Your task to perform on an android device: clear history in the chrome app Image 0: 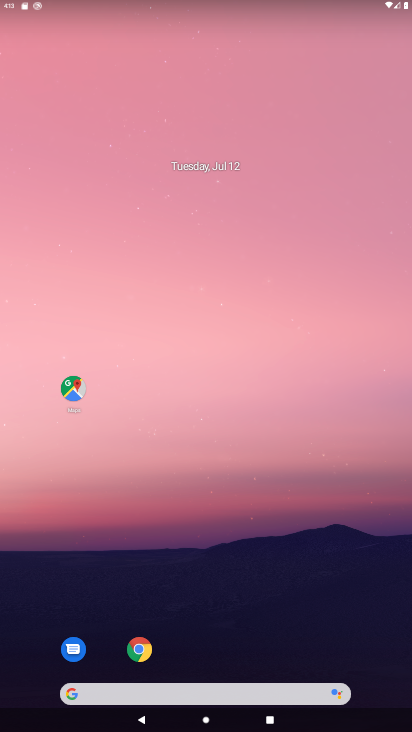
Step 0: click (146, 646)
Your task to perform on an android device: clear history in the chrome app Image 1: 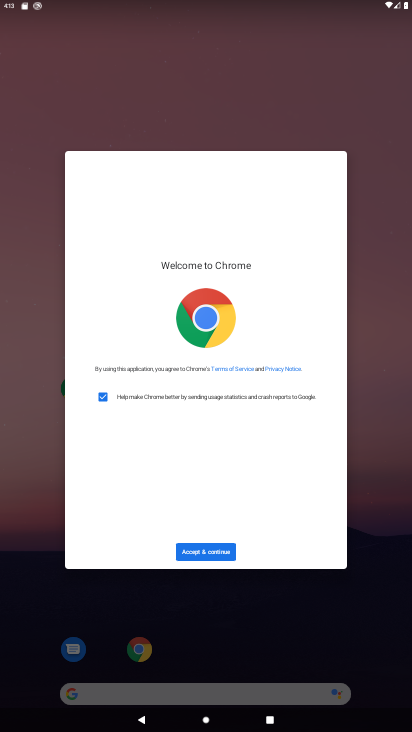
Step 1: click (199, 555)
Your task to perform on an android device: clear history in the chrome app Image 2: 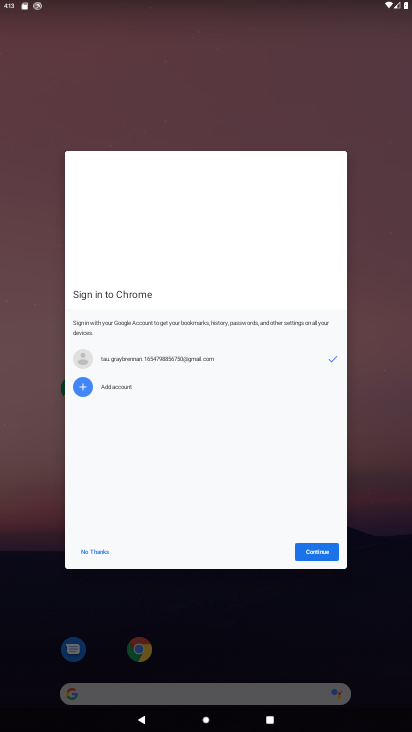
Step 2: click (316, 556)
Your task to perform on an android device: clear history in the chrome app Image 3: 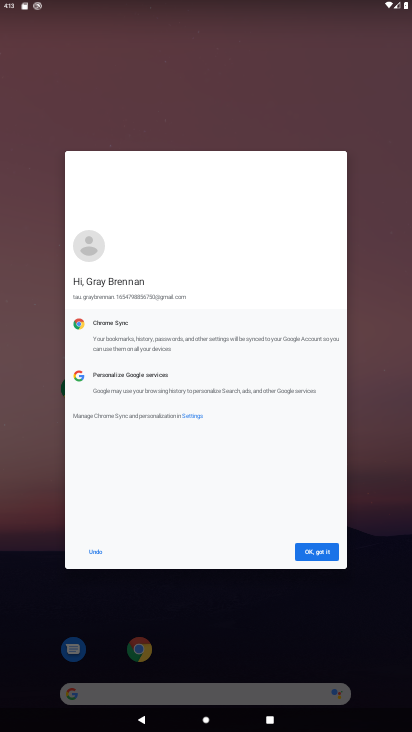
Step 3: click (316, 556)
Your task to perform on an android device: clear history in the chrome app Image 4: 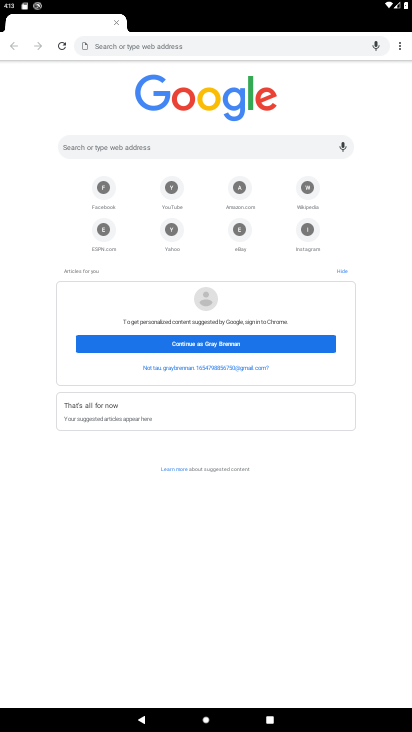
Step 4: click (400, 42)
Your task to perform on an android device: clear history in the chrome app Image 5: 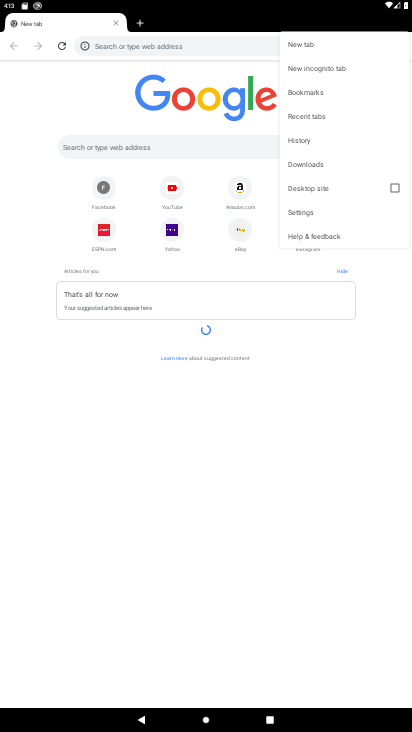
Step 5: click (310, 143)
Your task to perform on an android device: clear history in the chrome app Image 6: 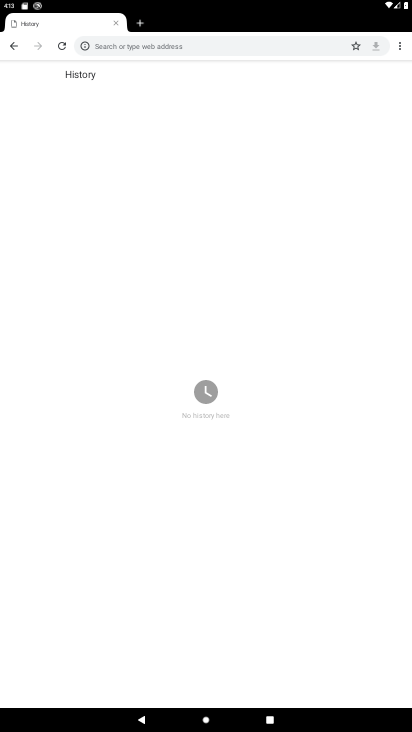
Step 6: task complete